Your task to perform on an android device: clear all cookies in the chrome app Image 0: 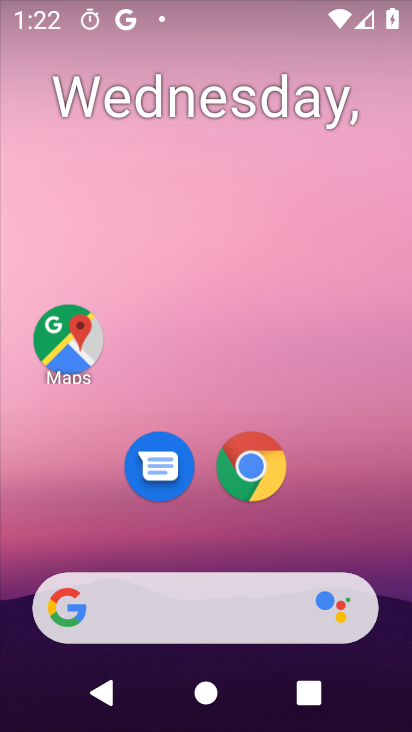
Step 0: click (260, 475)
Your task to perform on an android device: clear all cookies in the chrome app Image 1: 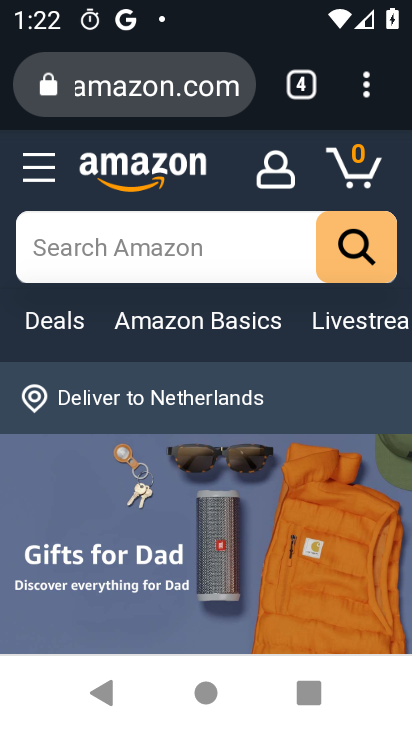
Step 1: click (380, 65)
Your task to perform on an android device: clear all cookies in the chrome app Image 2: 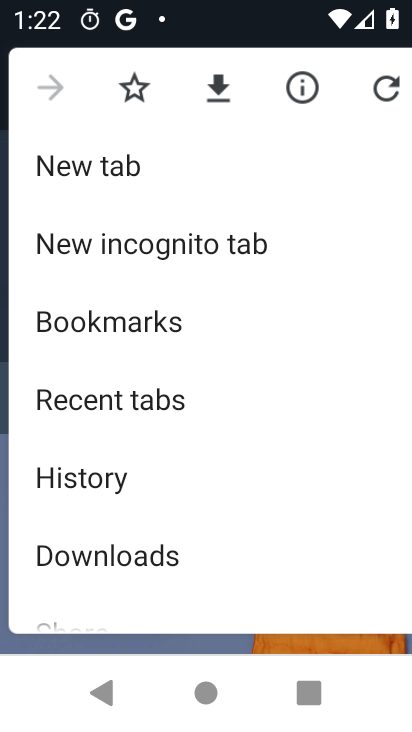
Step 2: drag from (207, 563) to (237, 302)
Your task to perform on an android device: clear all cookies in the chrome app Image 3: 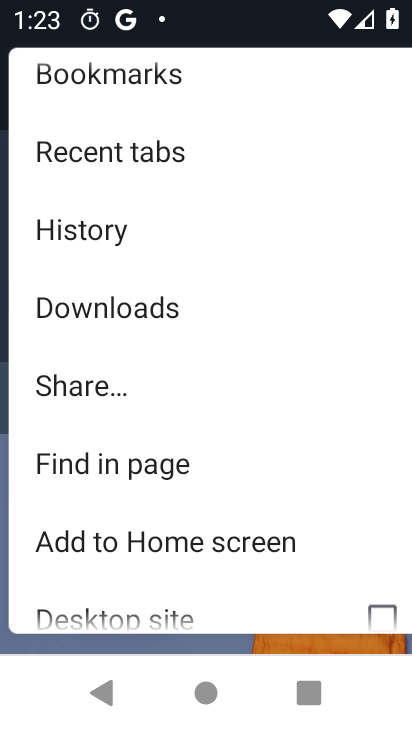
Step 3: drag from (167, 438) to (124, 36)
Your task to perform on an android device: clear all cookies in the chrome app Image 4: 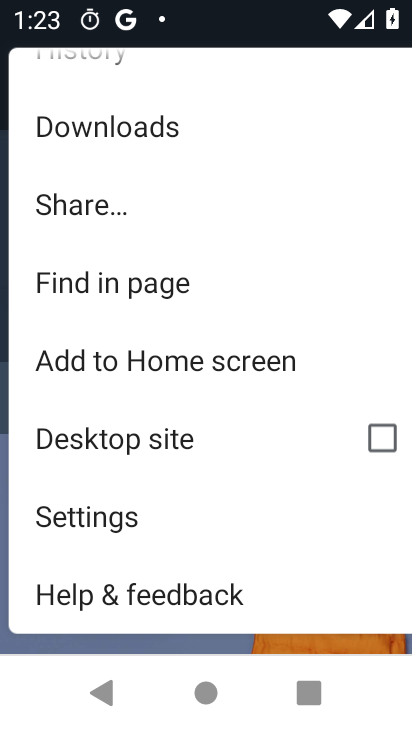
Step 4: click (106, 499)
Your task to perform on an android device: clear all cookies in the chrome app Image 5: 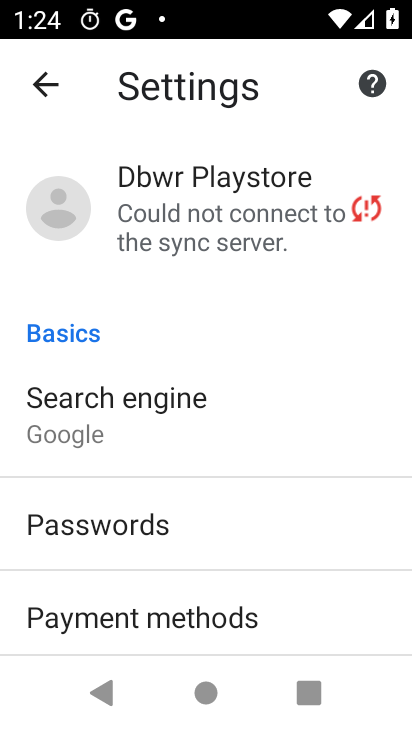
Step 5: drag from (161, 528) to (143, 17)
Your task to perform on an android device: clear all cookies in the chrome app Image 6: 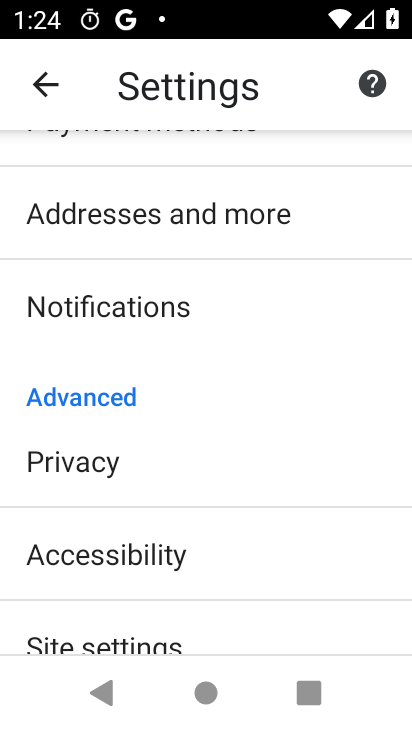
Step 6: drag from (133, 558) to (91, 112)
Your task to perform on an android device: clear all cookies in the chrome app Image 7: 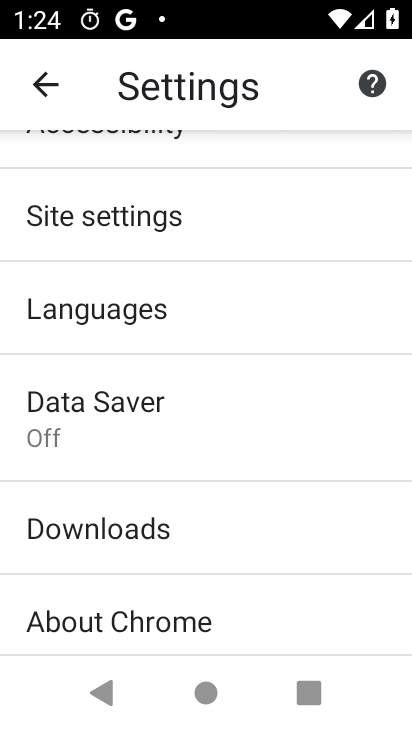
Step 7: click (147, 226)
Your task to perform on an android device: clear all cookies in the chrome app Image 8: 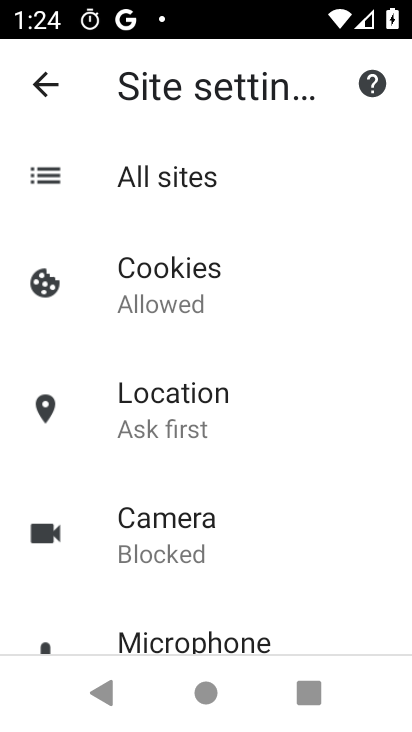
Step 8: click (265, 284)
Your task to perform on an android device: clear all cookies in the chrome app Image 9: 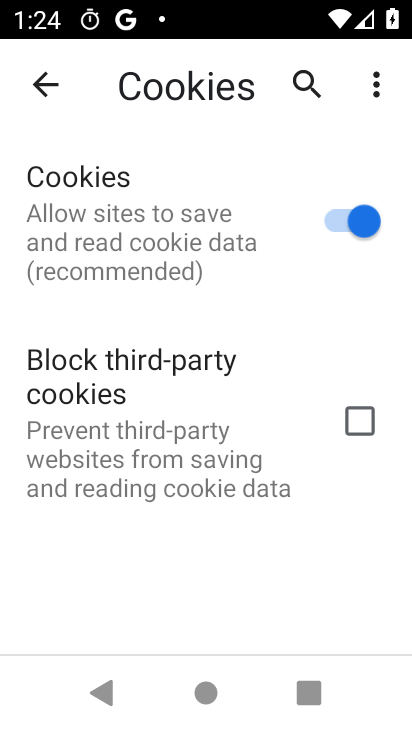
Step 9: click (360, 84)
Your task to perform on an android device: clear all cookies in the chrome app Image 10: 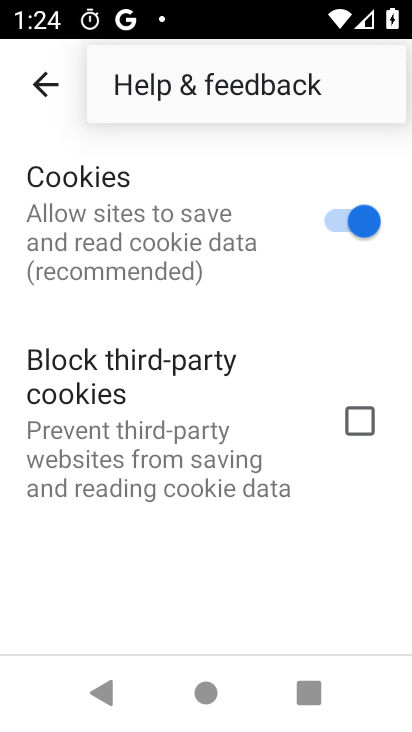
Step 10: click (201, 336)
Your task to perform on an android device: clear all cookies in the chrome app Image 11: 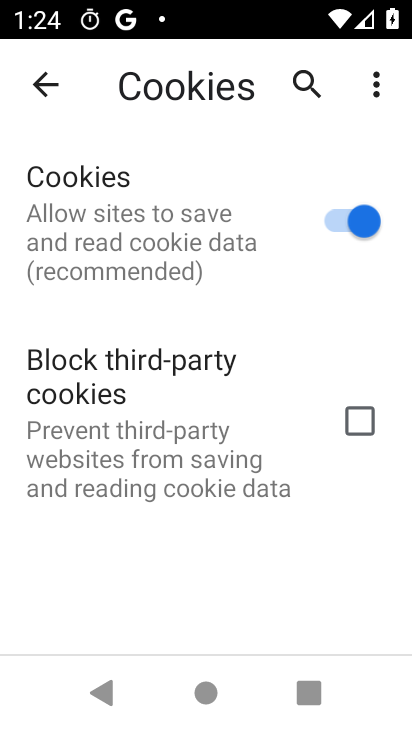
Step 11: task complete